Your task to perform on an android device: turn off sleep mode Image 0: 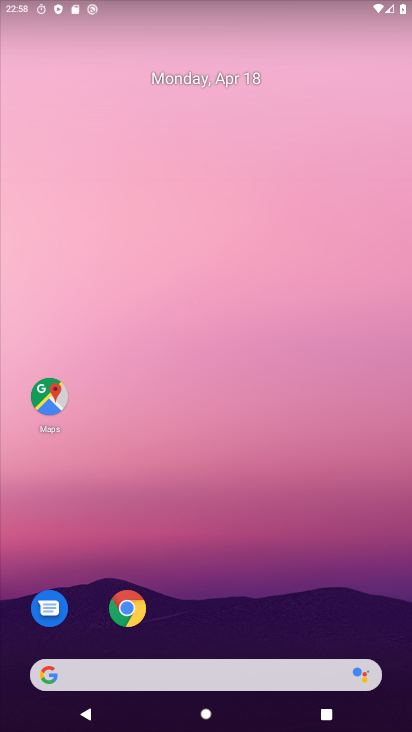
Step 0: drag from (206, 578) to (176, 131)
Your task to perform on an android device: turn off sleep mode Image 1: 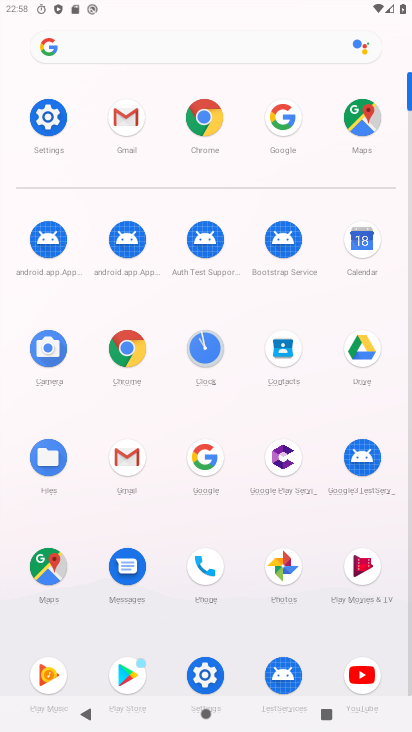
Step 1: click (44, 117)
Your task to perform on an android device: turn off sleep mode Image 2: 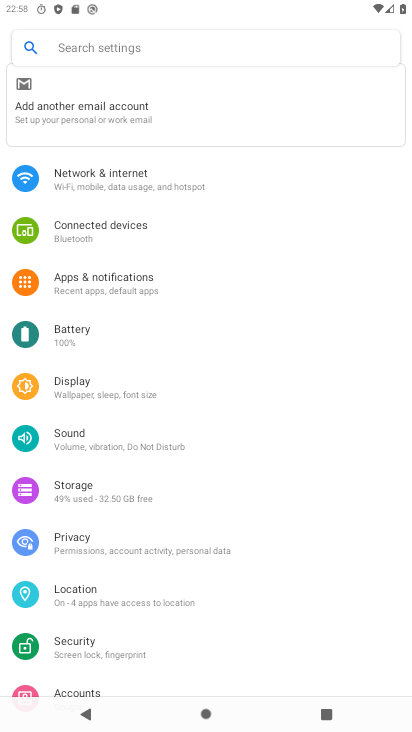
Step 2: click (100, 389)
Your task to perform on an android device: turn off sleep mode Image 3: 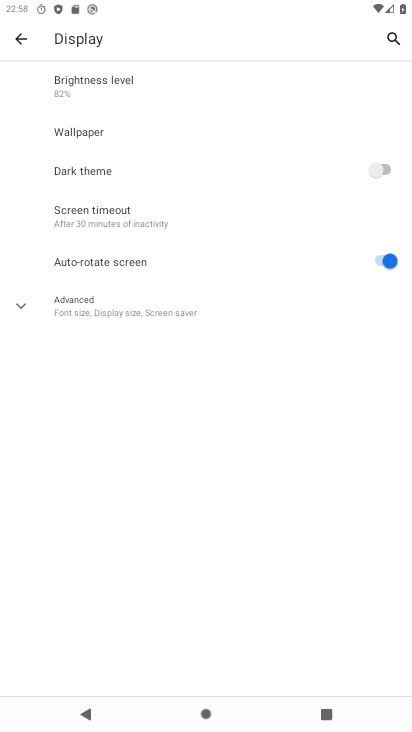
Step 3: click (105, 214)
Your task to perform on an android device: turn off sleep mode Image 4: 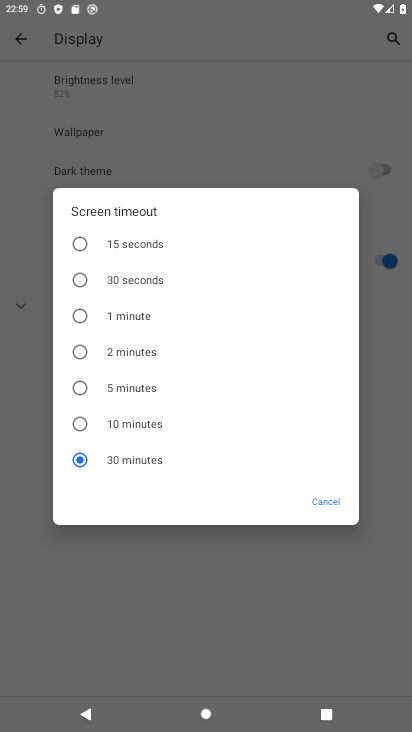
Step 4: task complete